Your task to perform on an android device: allow notifications from all sites in the chrome app Image 0: 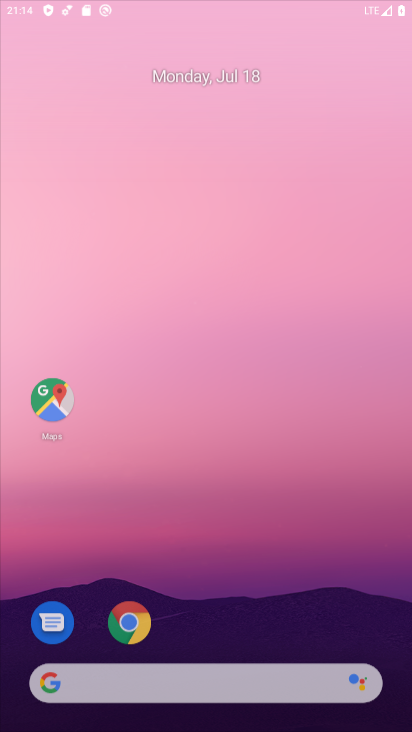
Step 0: drag from (221, 511) to (229, 247)
Your task to perform on an android device: allow notifications from all sites in the chrome app Image 1: 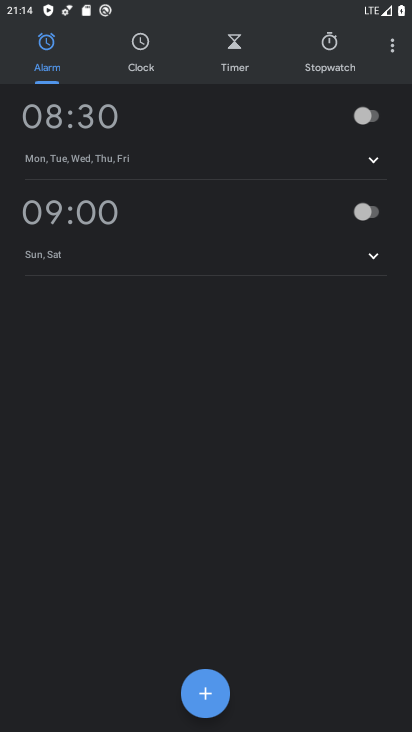
Step 1: press home button
Your task to perform on an android device: allow notifications from all sites in the chrome app Image 2: 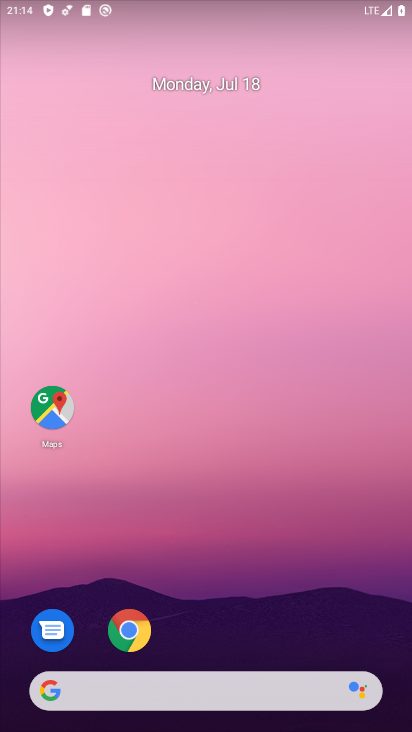
Step 2: drag from (208, 693) to (228, 299)
Your task to perform on an android device: allow notifications from all sites in the chrome app Image 3: 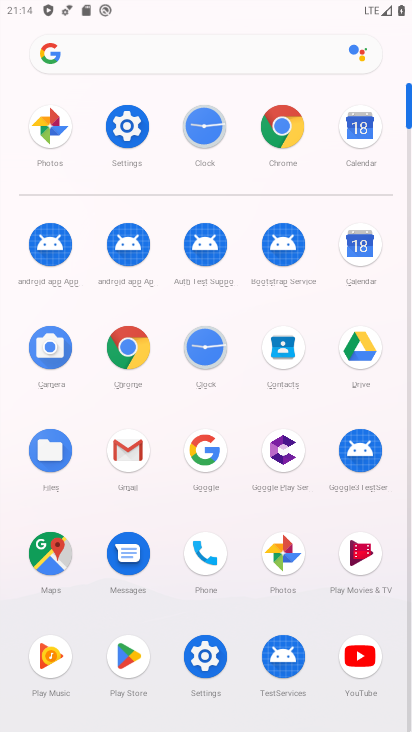
Step 3: click (136, 329)
Your task to perform on an android device: allow notifications from all sites in the chrome app Image 4: 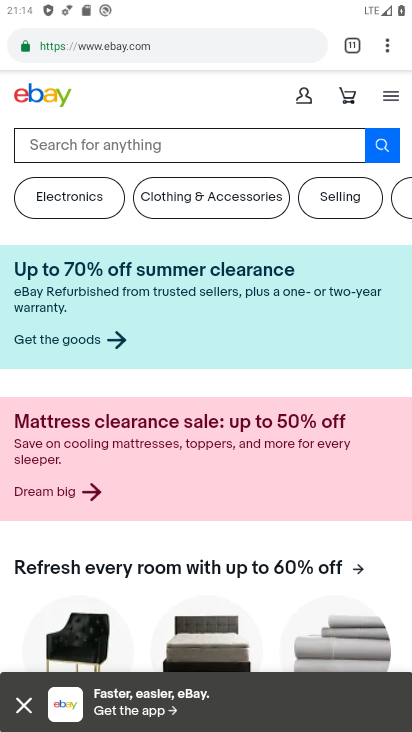
Step 4: click (391, 30)
Your task to perform on an android device: allow notifications from all sites in the chrome app Image 5: 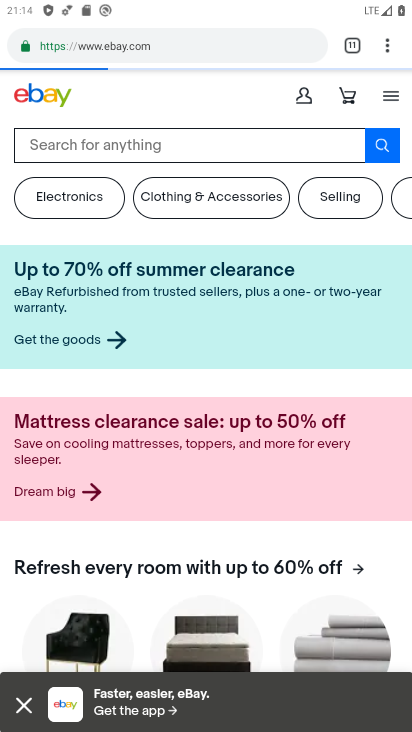
Step 5: click (387, 46)
Your task to perform on an android device: allow notifications from all sites in the chrome app Image 6: 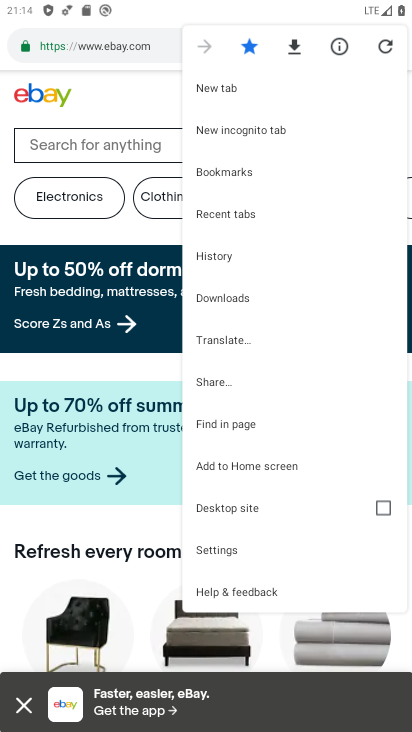
Step 6: click (235, 554)
Your task to perform on an android device: allow notifications from all sites in the chrome app Image 7: 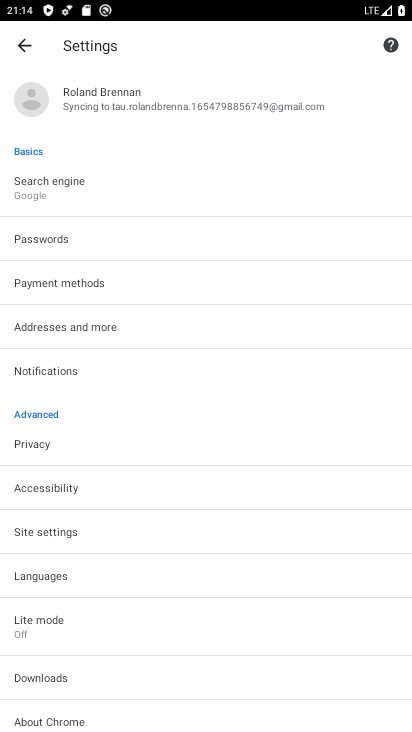
Step 7: click (61, 530)
Your task to perform on an android device: allow notifications from all sites in the chrome app Image 8: 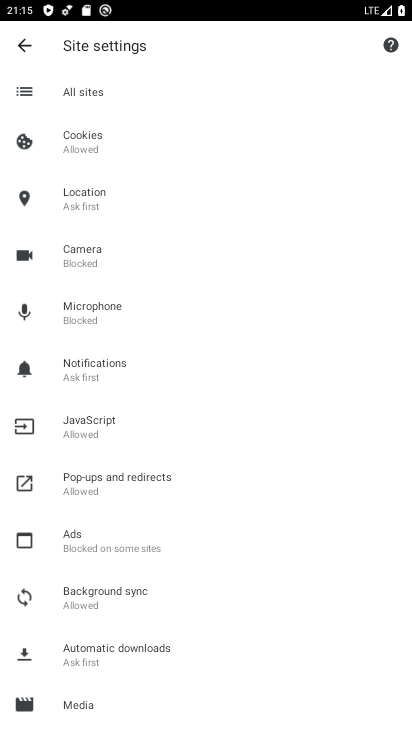
Step 8: click (74, 136)
Your task to perform on an android device: allow notifications from all sites in the chrome app Image 9: 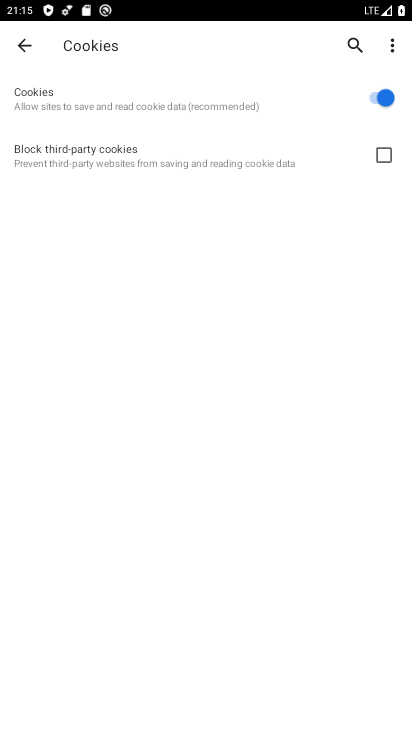
Step 9: click (19, 50)
Your task to perform on an android device: allow notifications from all sites in the chrome app Image 10: 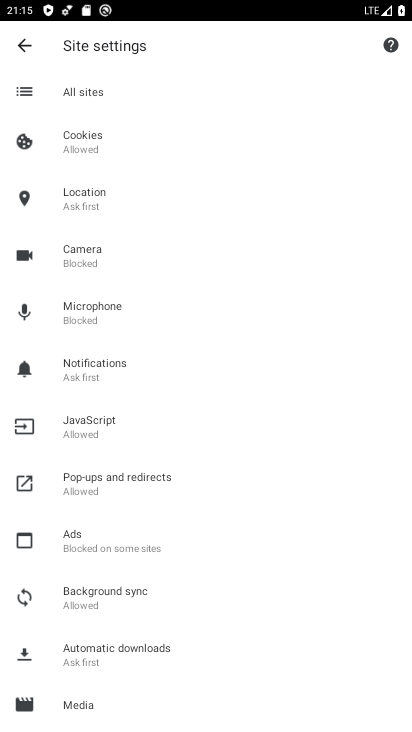
Step 10: click (120, 178)
Your task to perform on an android device: allow notifications from all sites in the chrome app Image 11: 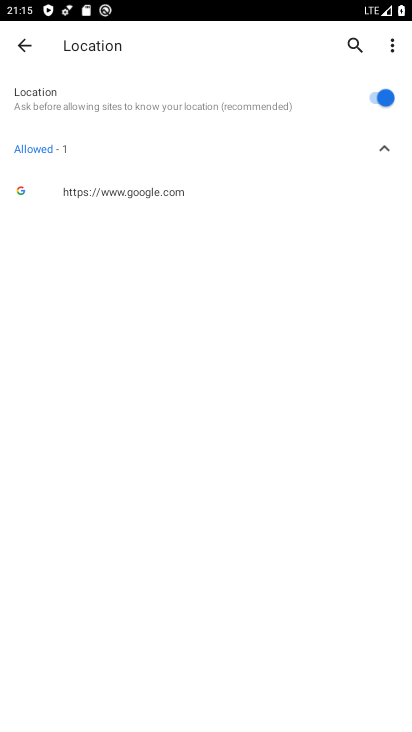
Step 11: click (21, 43)
Your task to perform on an android device: allow notifications from all sites in the chrome app Image 12: 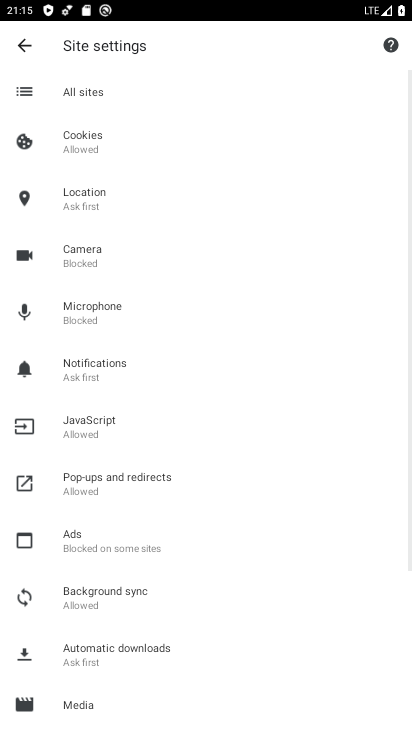
Step 12: click (110, 362)
Your task to perform on an android device: allow notifications from all sites in the chrome app Image 13: 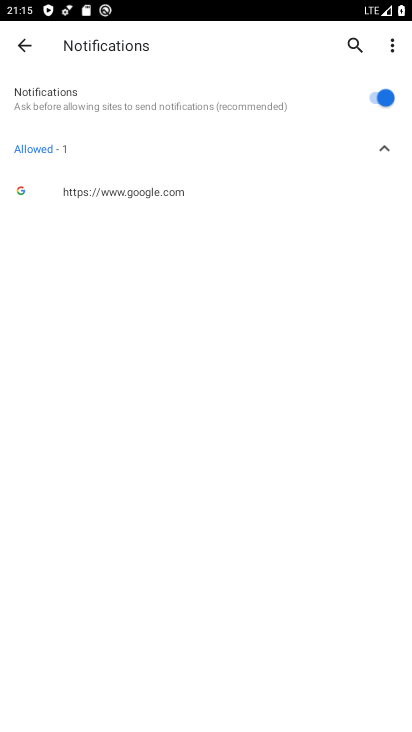
Step 13: click (22, 41)
Your task to perform on an android device: allow notifications from all sites in the chrome app Image 14: 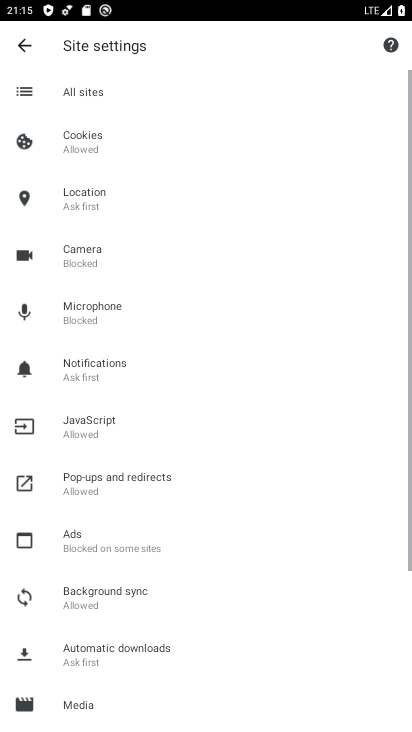
Step 14: click (122, 476)
Your task to perform on an android device: allow notifications from all sites in the chrome app Image 15: 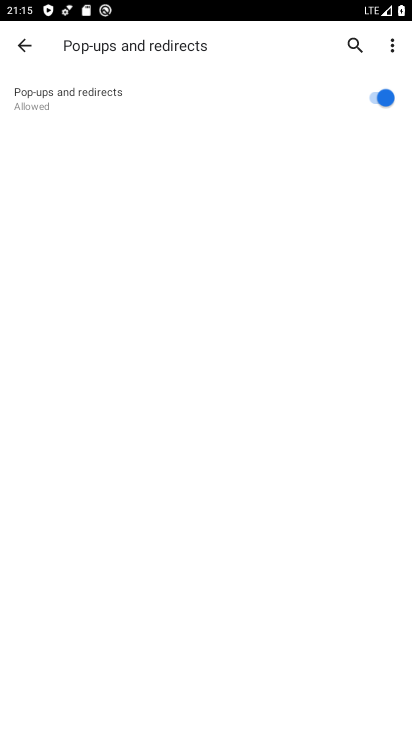
Step 15: click (25, 51)
Your task to perform on an android device: allow notifications from all sites in the chrome app Image 16: 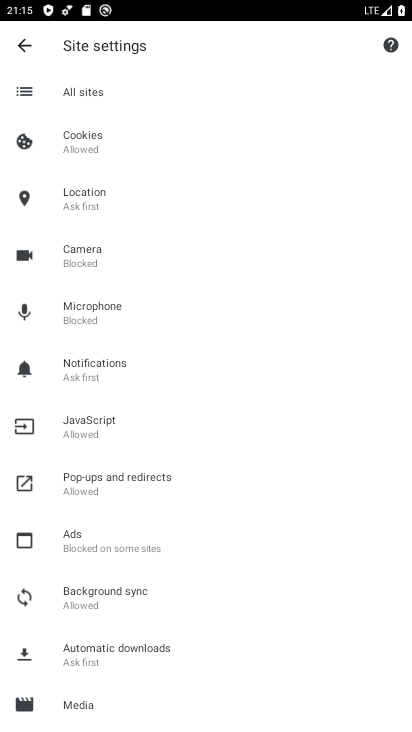
Step 16: task complete